Your task to perform on an android device: Open battery settings Image 0: 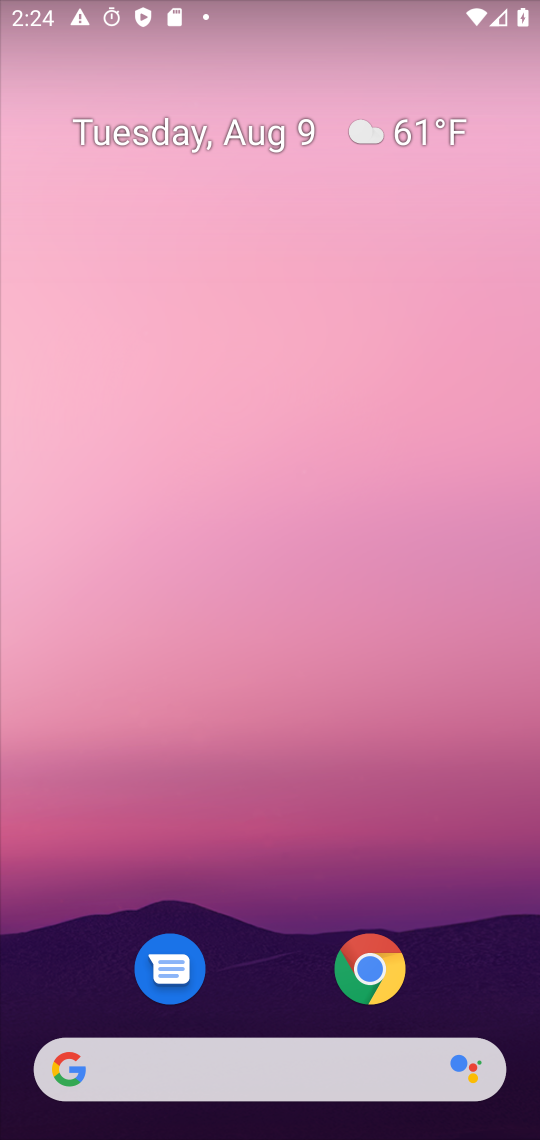
Step 0: press home button
Your task to perform on an android device: Open battery settings Image 1: 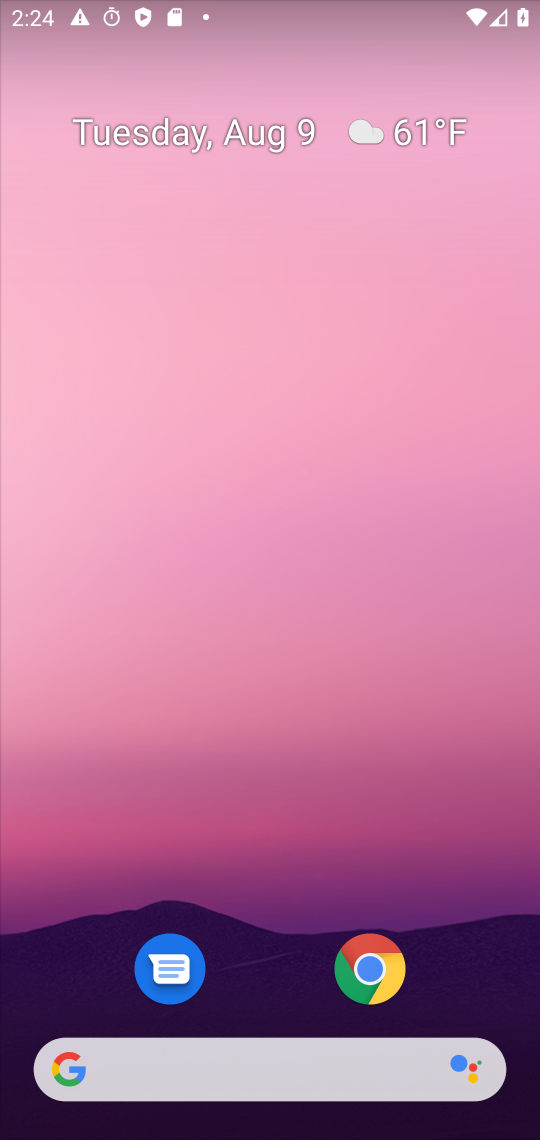
Step 1: drag from (324, 1070) to (179, 57)
Your task to perform on an android device: Open battery settings Image 2: 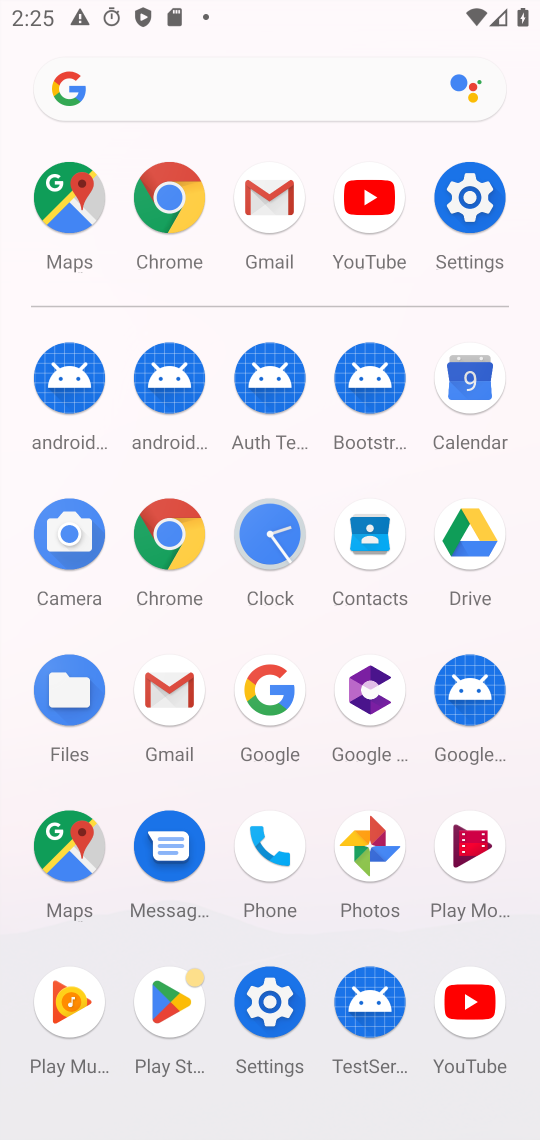
Step 2: click (490, 212)
Your task to perform on an android device: Open battery settings Image 3: 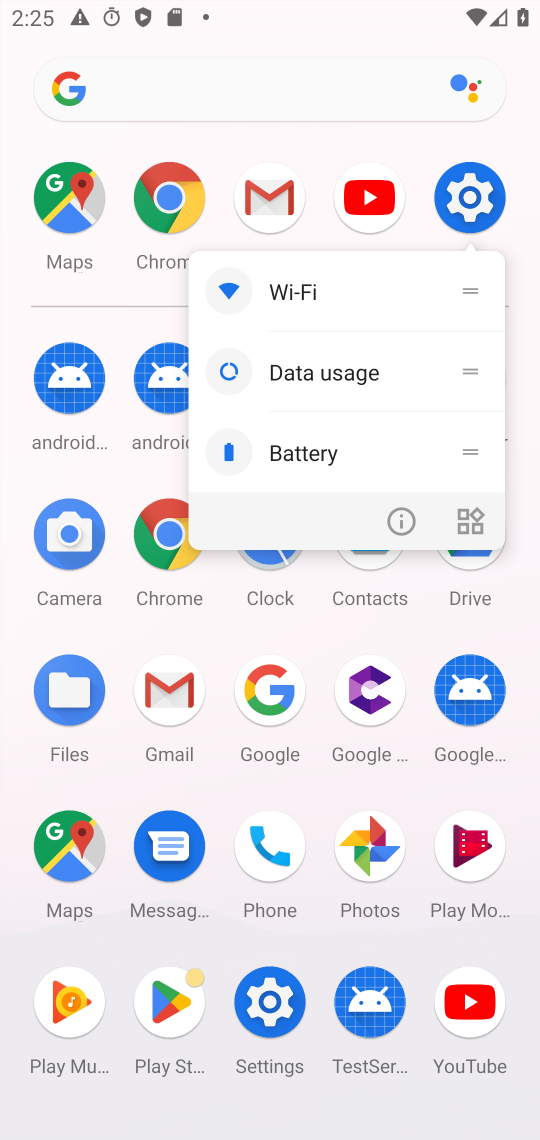
Step 3: click (470, 207)
Your task to perform on an android device: Open battery settings Image 4: 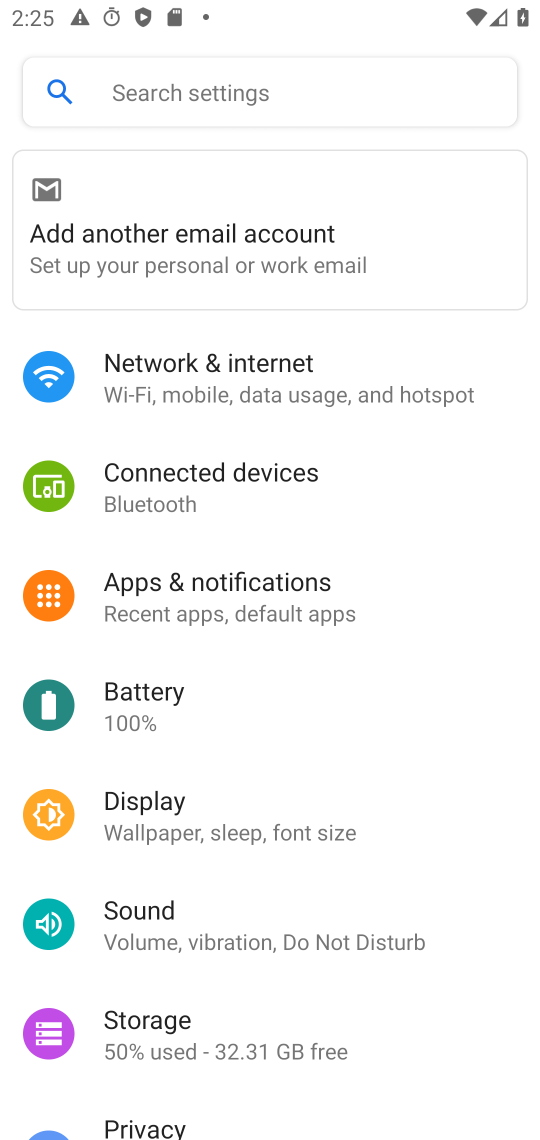
Step 4: click (149, 717)
Your task to perform on an android device: Open battery settings Image 5: 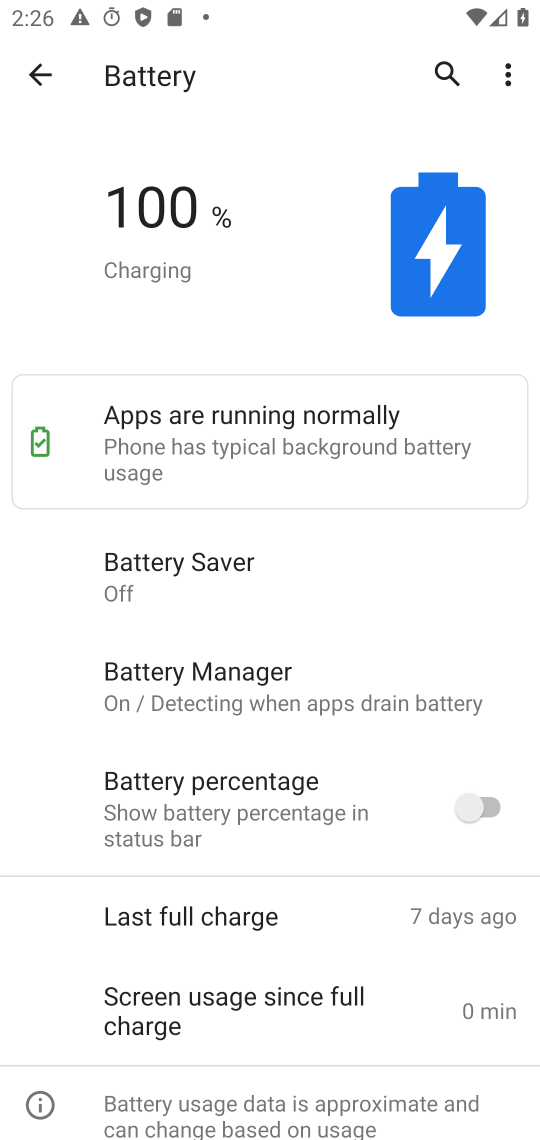
Step 5: task complete